Your task to perform on an android device: Go to Maps Image 0: 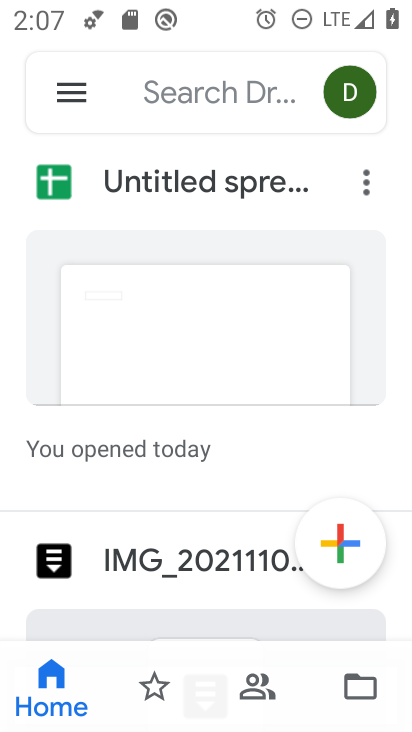
Step 0: press home button
Your task to perform on an android device: Go to Maps Image 1: 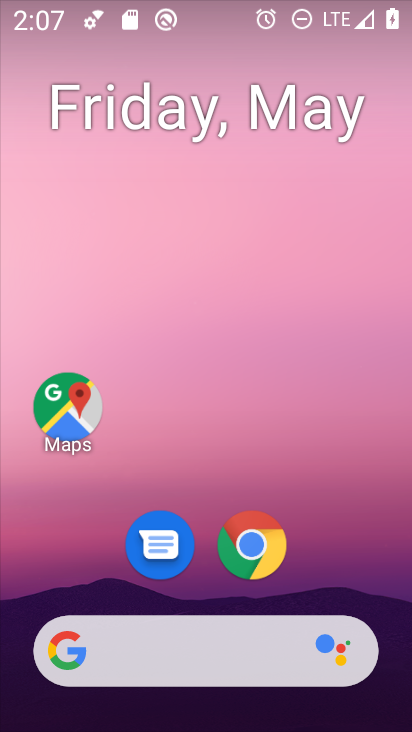
Step 1: click (67, 409)
Your task to perform on an android device: Go to Maps Image 2: 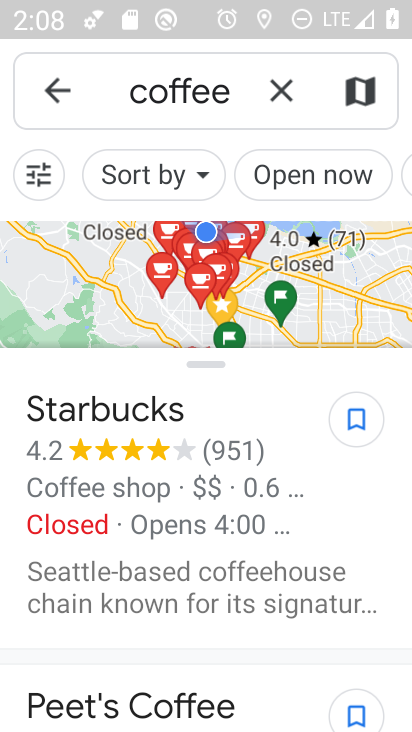
Step 2: task complete